Your task to perform on an android device: Go to location settings Image 0: 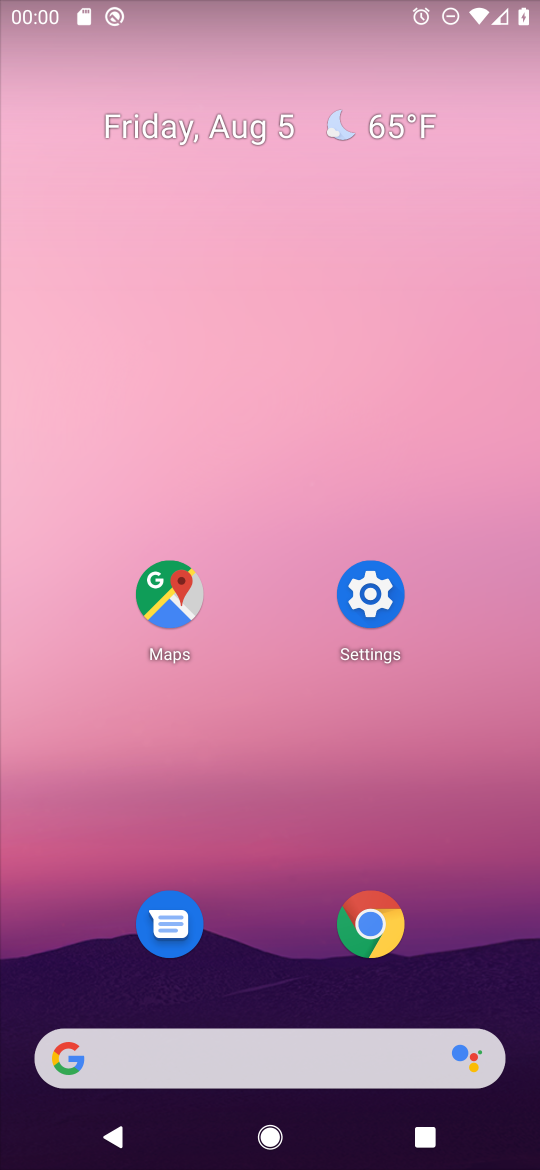
Step 0: press home button
Your task to perform on an android device: Go to location settings Image 1: 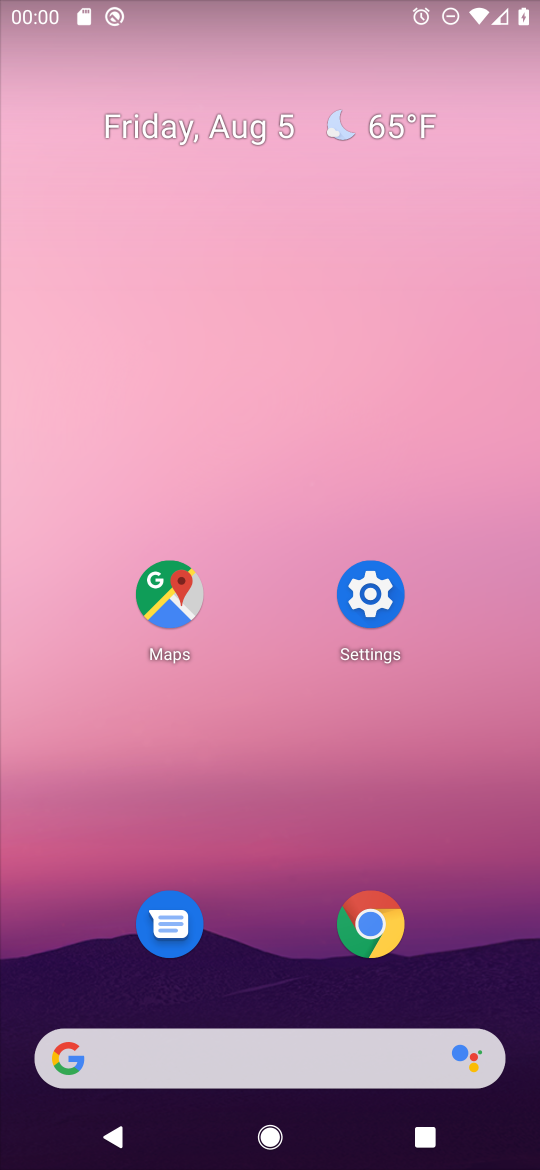
Step 1: click (381, 597)
Your task to perform on an android device: Go to location settings Image 2: 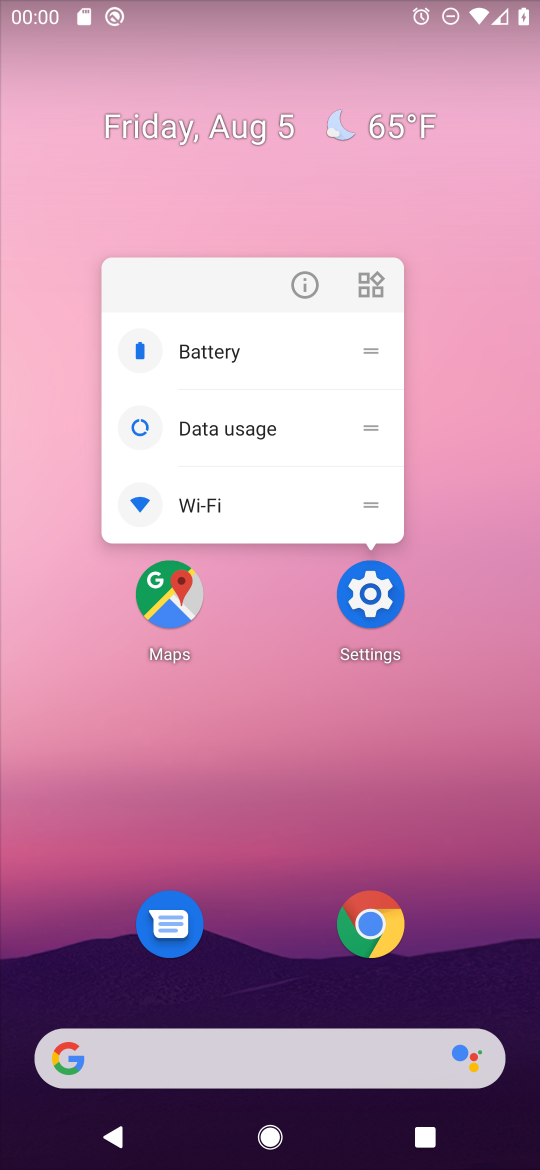
Step 2: click (368, 600)
Your task to perform on an android device: Go to location settings Image 3: 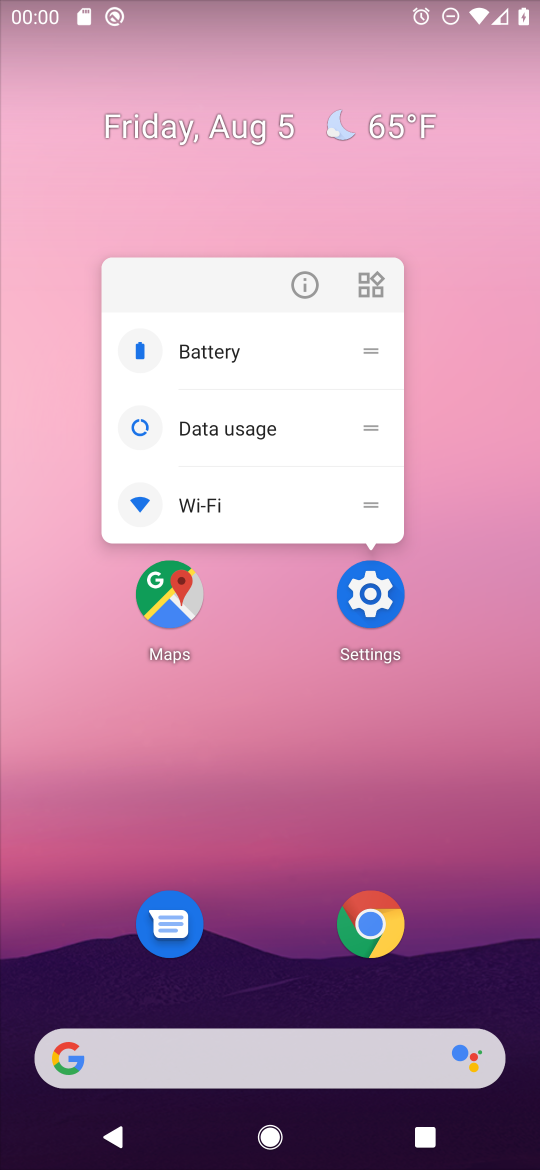
Step 3: click (368, 598)
Your task to perform on an android device: Go to location settings Image 4: 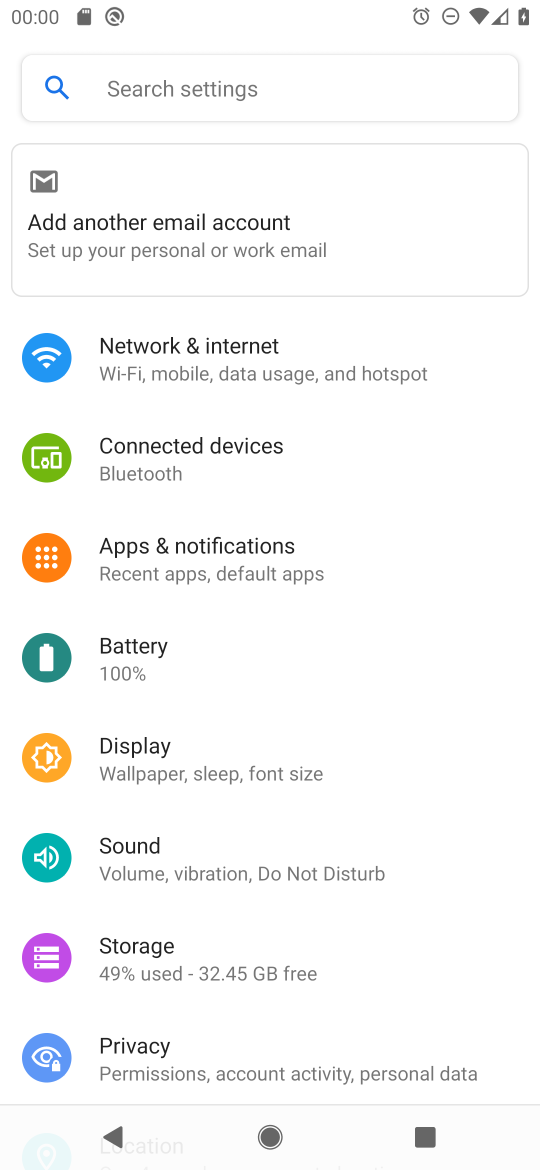
Step 4: drag from (354, 878) to (413, 608)
Your task to perform on an android device: Go to location settings Image 5: 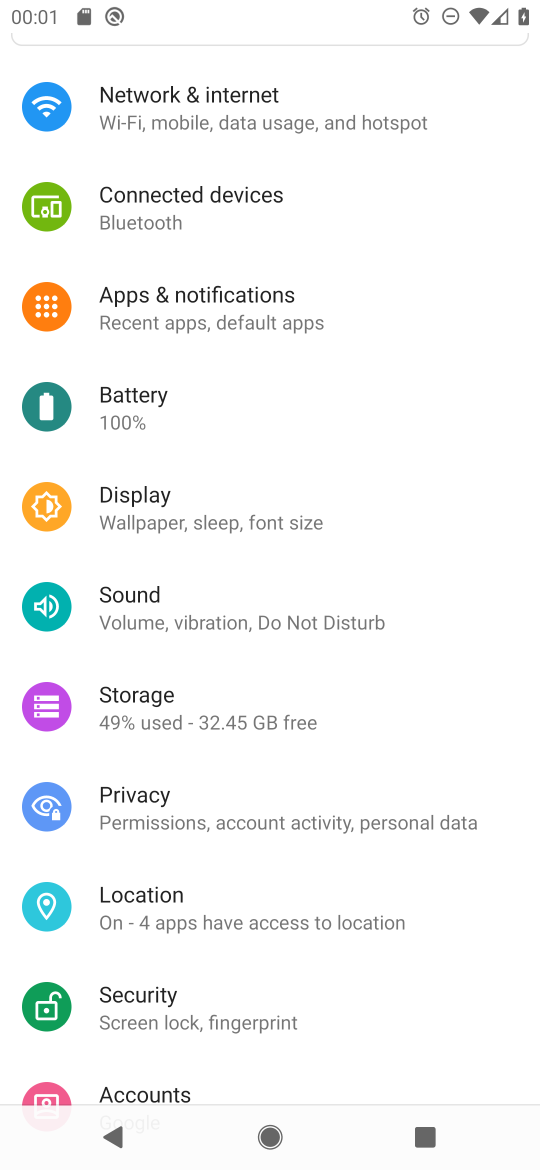
Step 5: click (148, 905)
Your task to perform on an android device: Go to location settings Image 6: 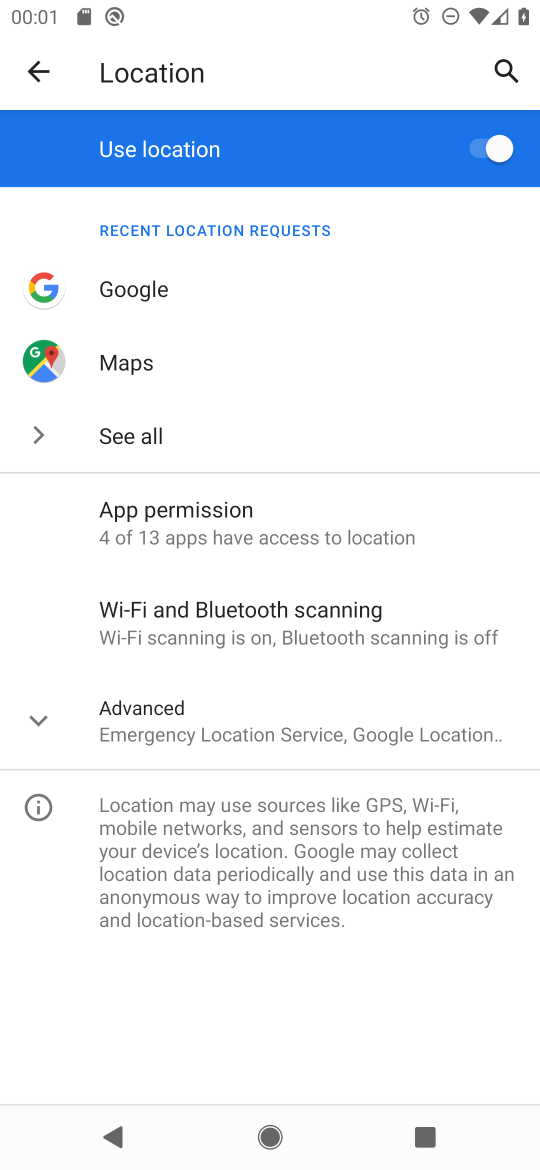
Step 6: task complete